Your task to perform on an android device: toggle javascript in the chrome app Image 0: 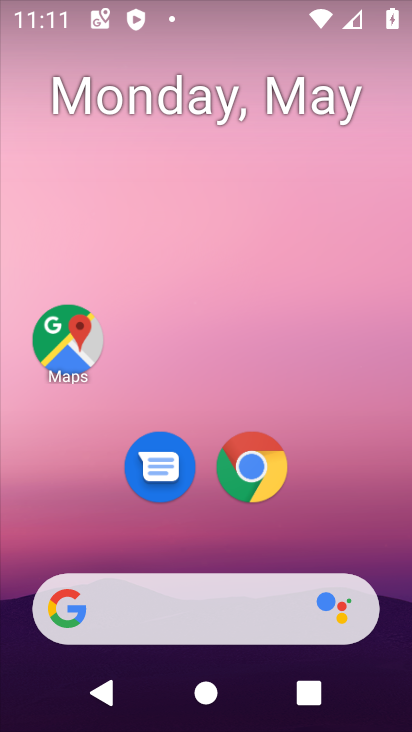
Step 0: click (246, 469)
Your task to perform on an android device: toggle javascript in the chrome app Image 1: 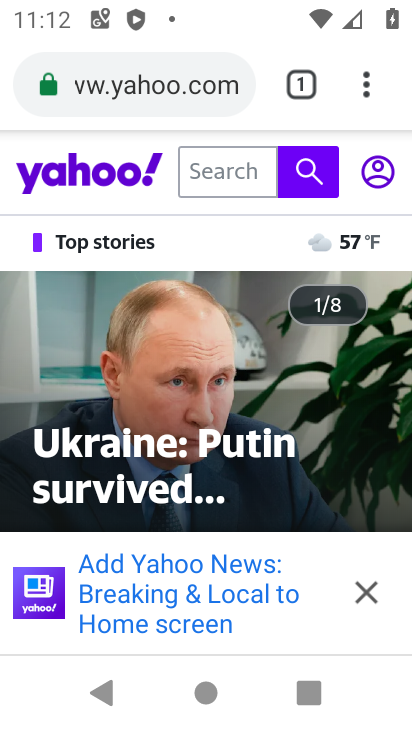
Step 1: click (362, 81)
Your task to perform on an android device: toggle javascript in the chrome app Image 2: 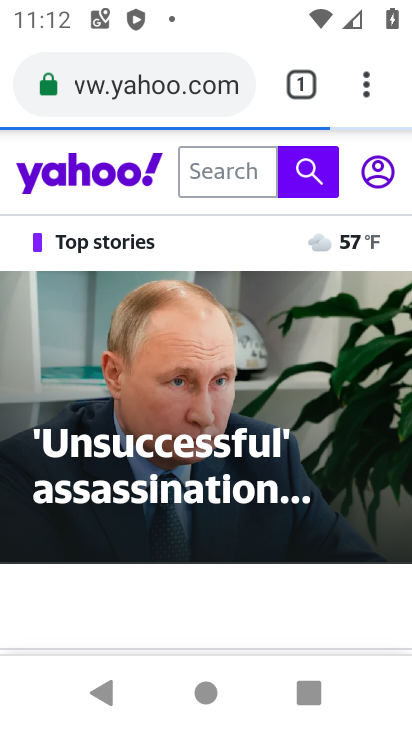
Step 2: click (373, 92)
Your task to perform on an android device: toggle javascript in the chrome app Image 3: 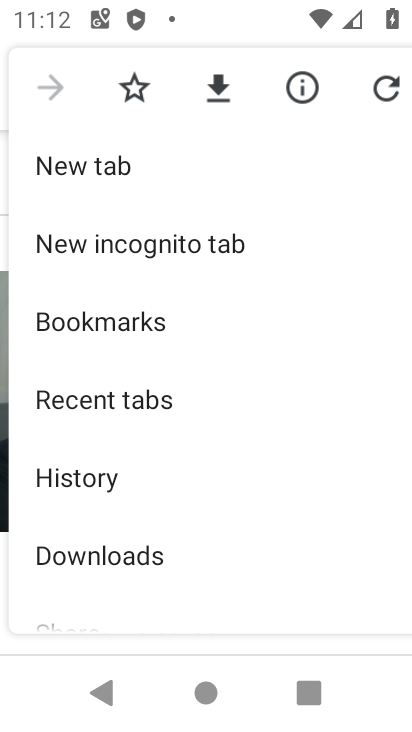
Step 3: drag from (165, 551) to (194, 112)
Your task to perform on an android device: toggle javascript in the chrome app Image 4: 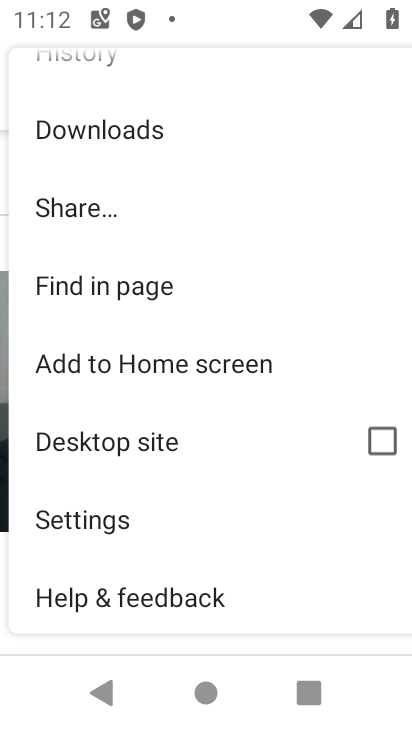
Step 4: click (169, 514)
Your task to perform on an android device: toggle javascript in the chrome app Image 5: 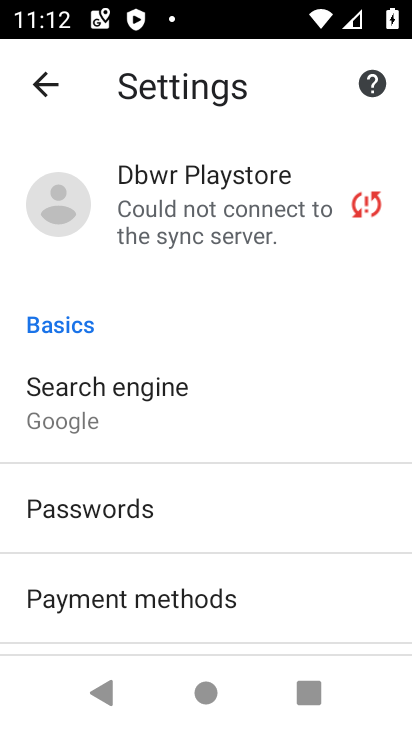
Step 5: drag from (158, 548) to (193, 255)
Your task to perform on an android device: toggle javascript in the chrome app Image 6: 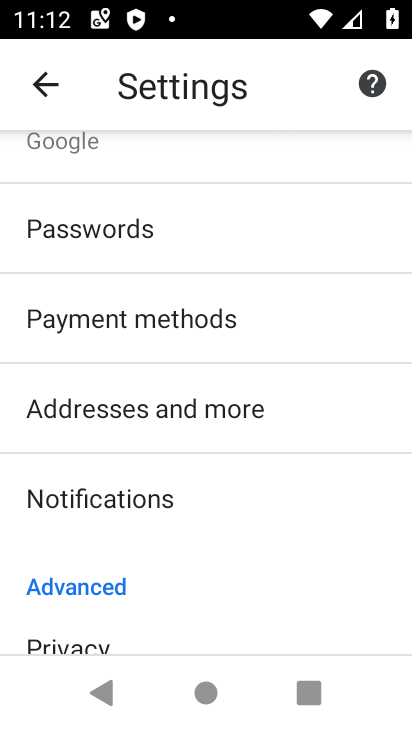
Step 6: drag from (119, 611) to (210, 171)
Your task to perform on an android device: toggle javascript in the chrome app Image 7: 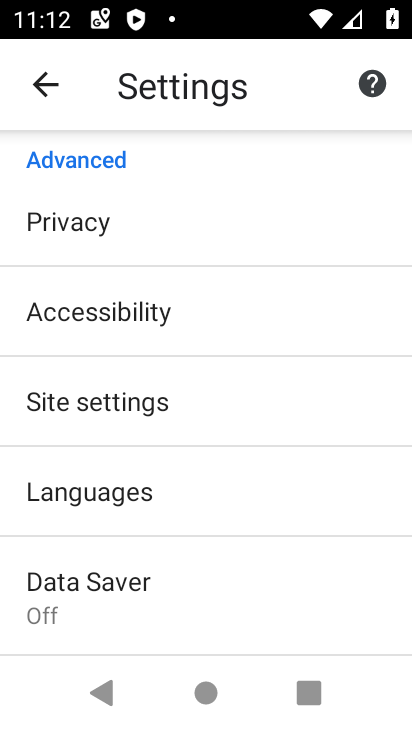
Step 7: click (150, 388)
Your task to perform on an android device: toggle javascript in the chrome app Image 8: 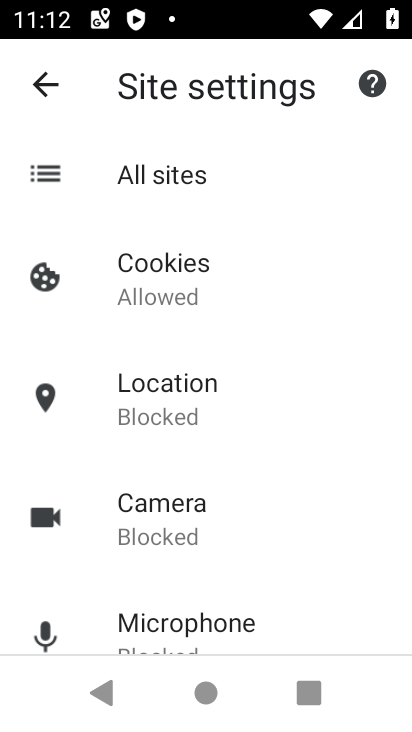
Step 8: drag from (195, 597) to (246, 202)
Your task to perform on an android device: toggle javascript in the chrome app Image 9: 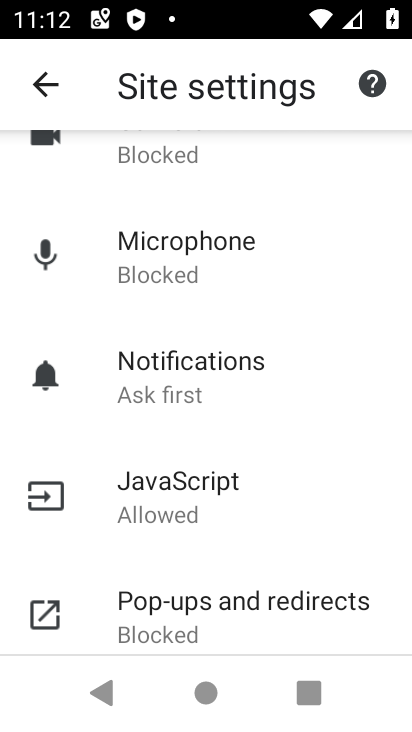
Step 9: click (179, 502)
Your task to perform on an android device: toggle javascript in the chrome app Image 10: 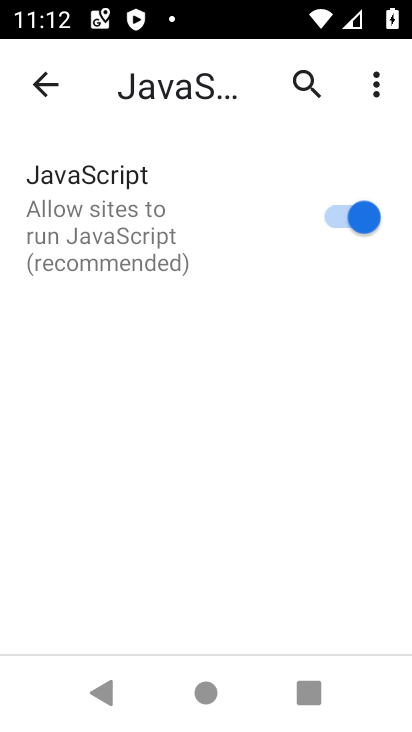
Step 10: click (322, 206)
Your task to perform on an android device: toggle javascript in the chrome app Image 11: 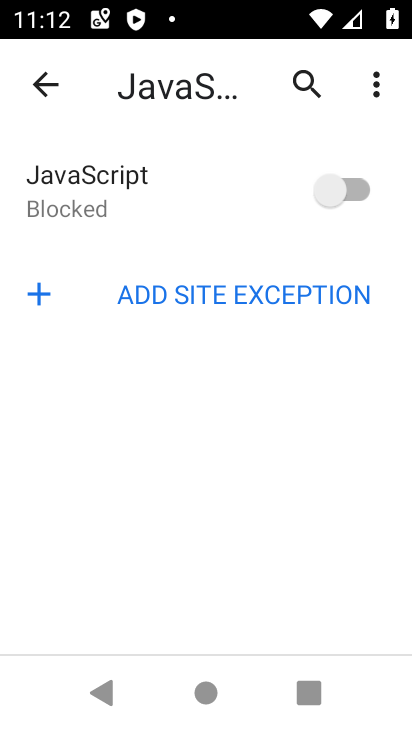
Step 11: task complete